Your task to perform on an android device: toggle translation in the chrome app Image 0: 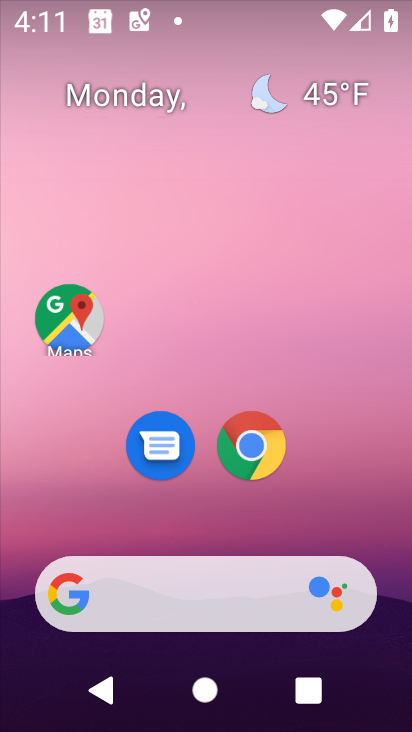
Step 0: click (264, 455)
Your task to perform on an android device: toggle translation in the chrome app Image 1: 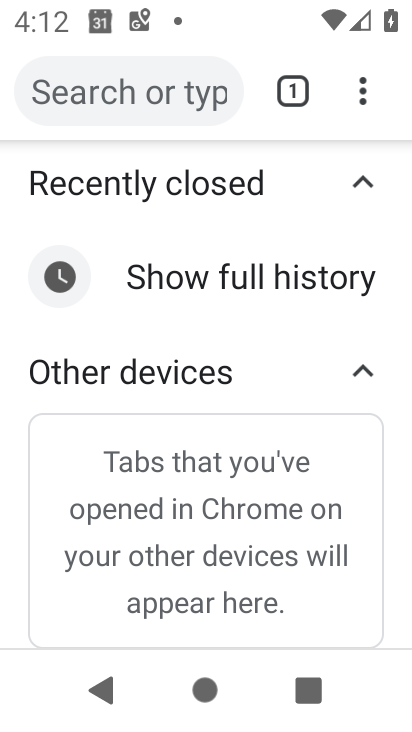
Step 1: click (355, 103)
Your task to perform on an android device: toggle translation in the chrome app Image 2: 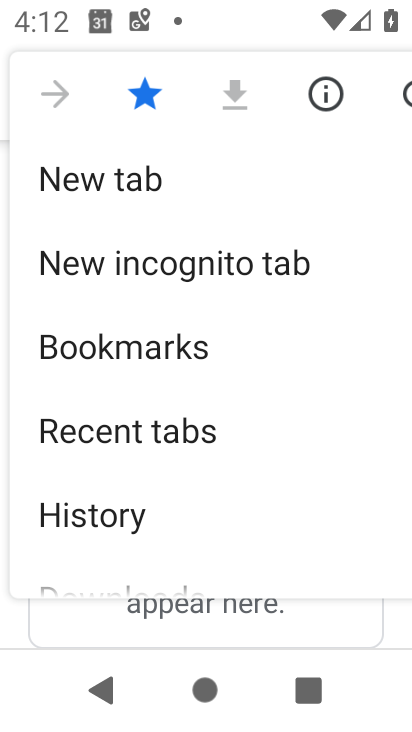
Step 2: drag from (287, 530) to (353, 240)
Your task to perform on an android device: toggle translation in the chrome app Image 3: 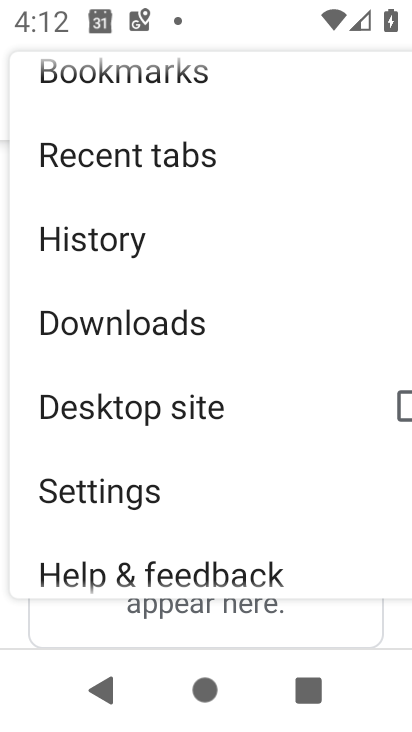
Step 3: click (196, 491)
Your task to perform on an android device: toggle translation in the chrome app Image 4: 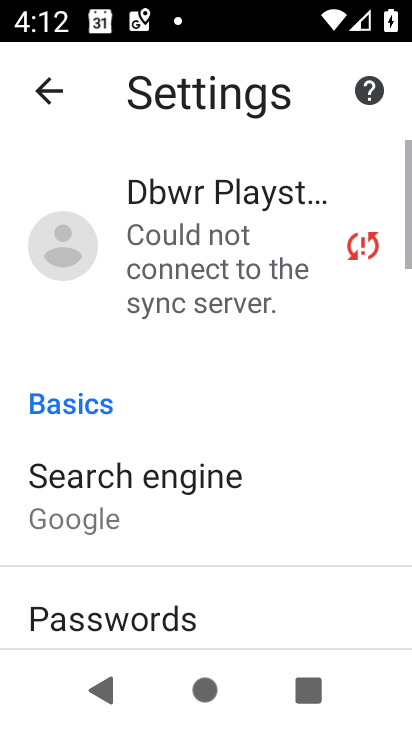
Step 4: drag from (196, 542) to (268, 197)
Your task to perform on an android device: toggle translation in the chrome app Image 5: 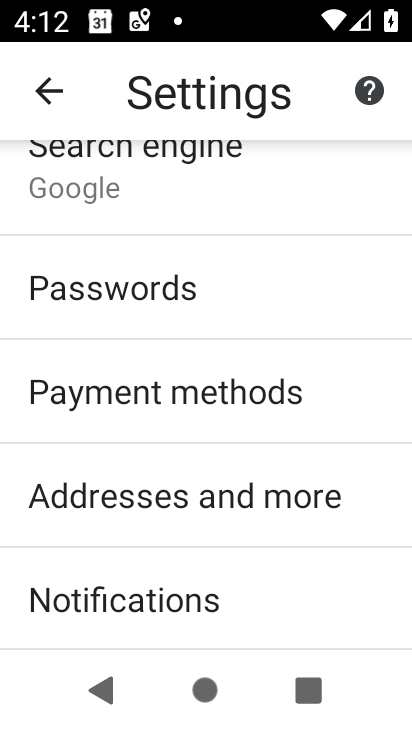
Step 5: drag from (245, 516) to (310, 140)
Your task to perform on an android device: toggle translation in the chrome app Image 6: 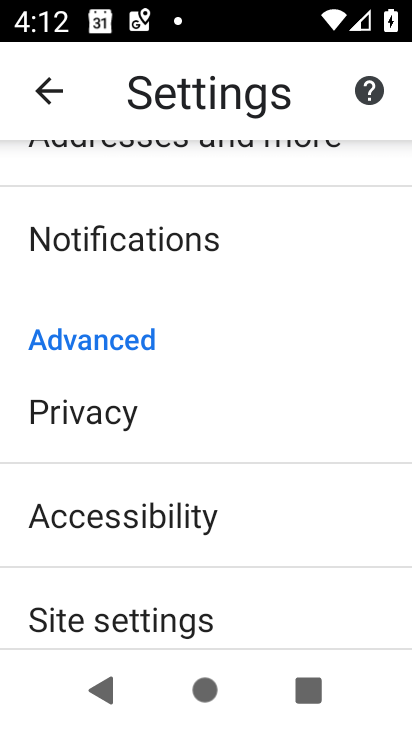
Step 6: drag from (156, 609) to (226, 264)
Your task to perform on an android device: toggle translation in the chrome app Image 7: 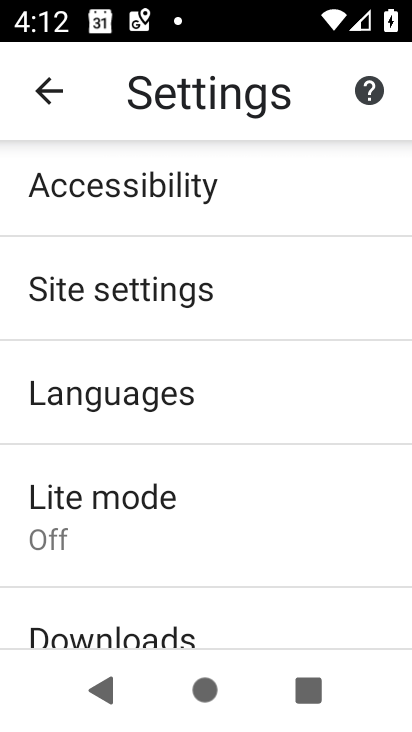
Step 7: click (219, 381)
Your task to perform on an android device: toggle translation in the chrome app Image 8: 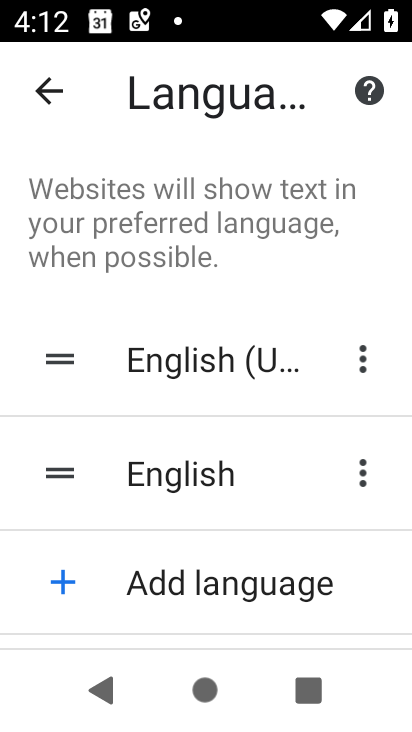
Step 8: drag from (305, 588) to (356, 305)
Your task to perform on an android device: toggle translation in the chrome app Image 9: 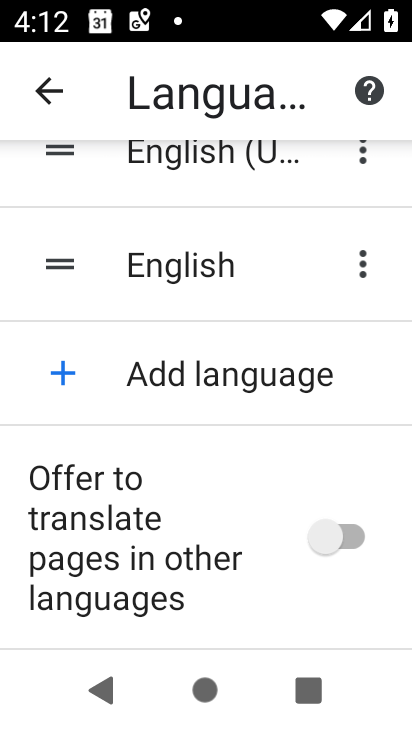
Step 9: click (346, 545)
Your task to perform on an android device: toggle translation in the chrome app Image 10: 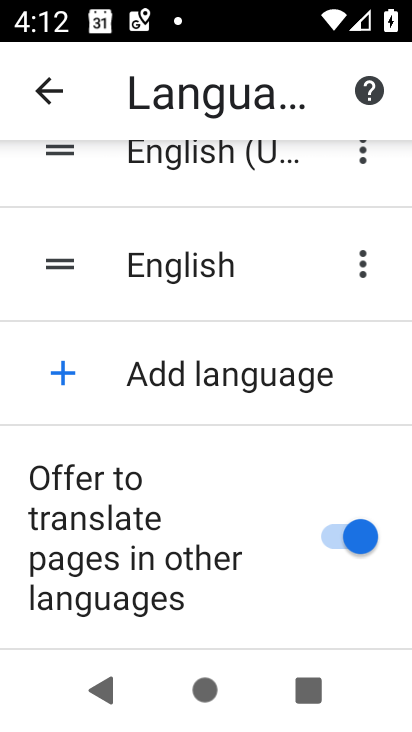
Step 10: task complete